Your task to perform on an android device: How do I get to the nearest Best Buy? Image 0: 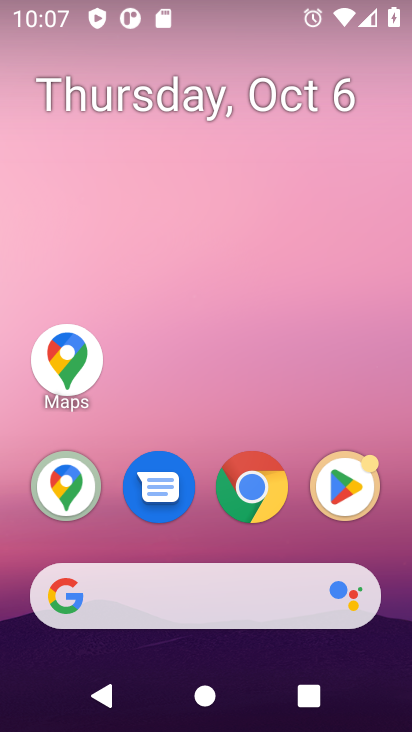
Step 0: click (86, 219)
Your task to perform on an android device: How do I get to the nearest Best Buy? Image 1: 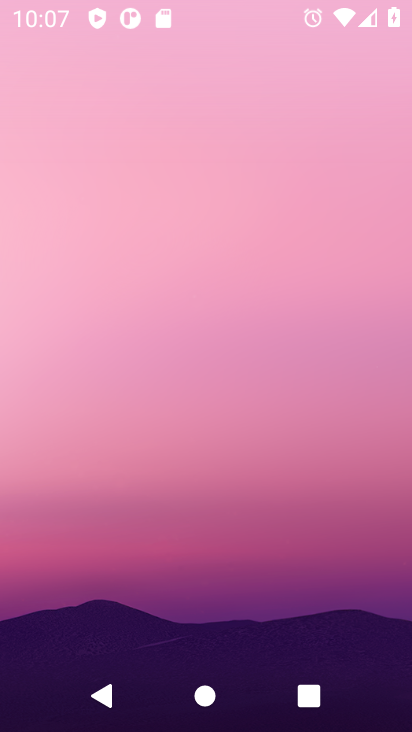
Step 1: drag from (244, 610) to (179, 210)
Your task to perform on an android device: How do I get to the nearest Best Buy? Image 2: 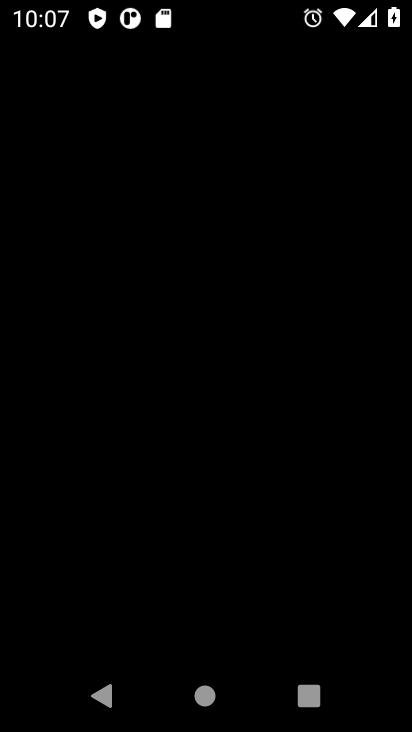
Step 2: press home button
Your task to perform on an android device: How do I get to the nearest Best Buy? Image 3: 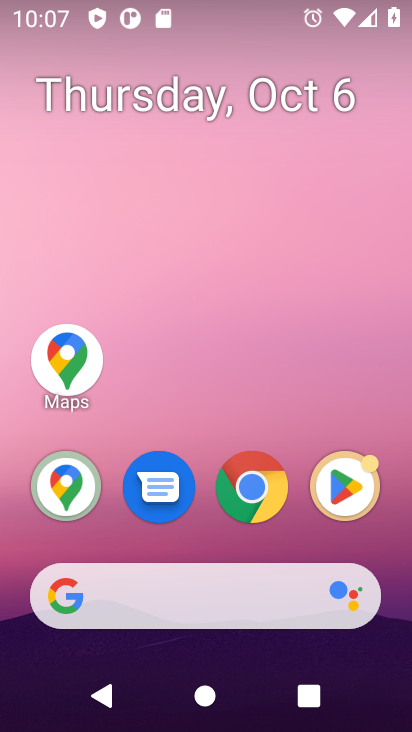
Step 3: drag from (148, 616) to (199, 90)
Your task to perform on an android device: How do I get to the nearest Best Buy? Image 4: 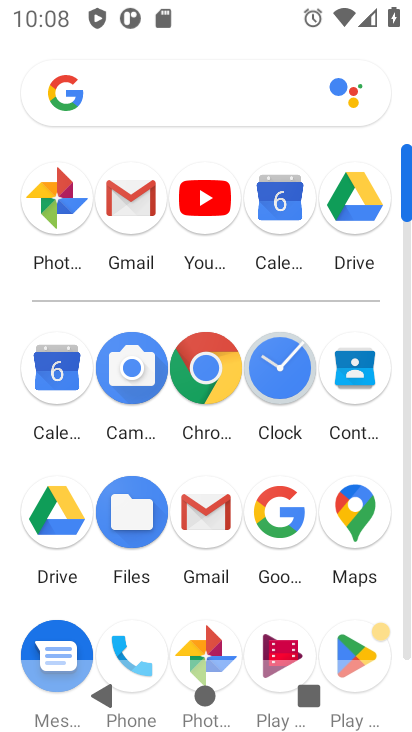
Step 4: click (189, 362)
Your task to perform on an android device: How do I get to the nearest Best Buy? Image 5: 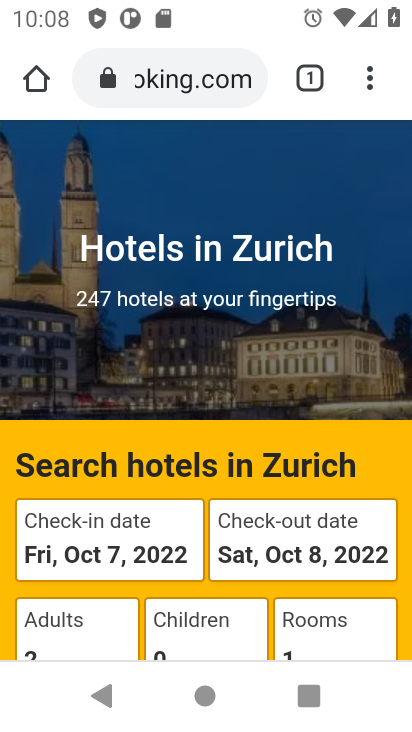
Step 5: click (249, 84)
Your task to perform on an android device: How do I get to the nearest Best Buy? Image 6: 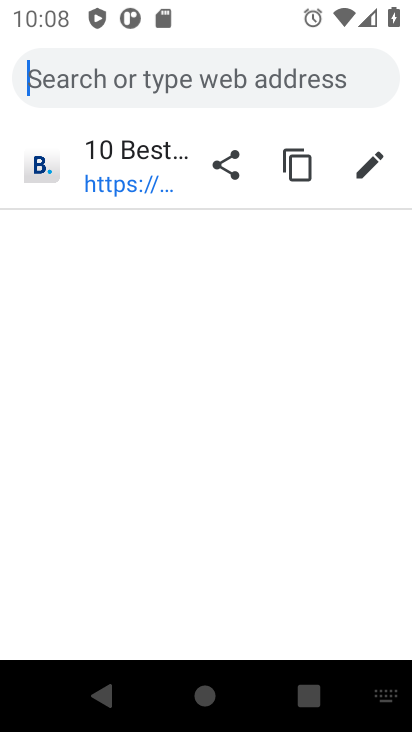
Step 6: type "How do I get to the nearest Best Buy?"
Your task to perform on an android device: How do I get to the nearest Best Buy? Image 7: 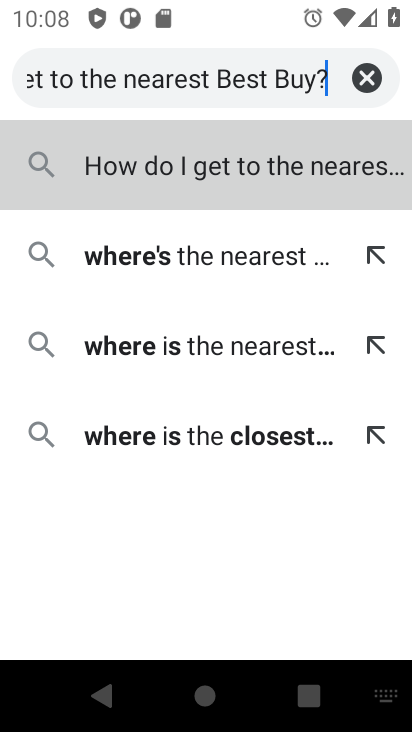
Step 7: press enter
Your task to perform on an android device: How do I get to the nearest Best Buy? Image 8: 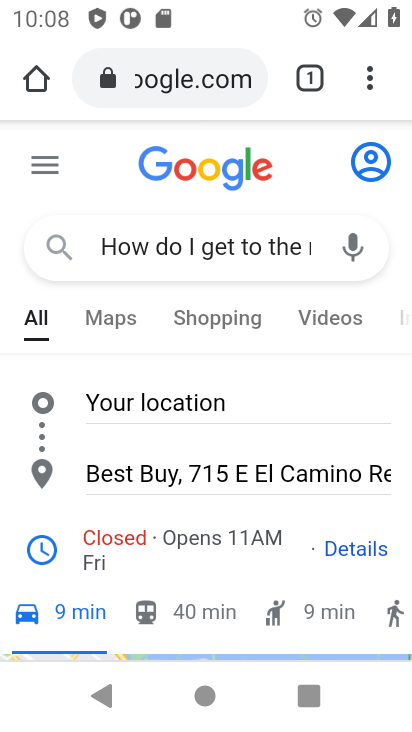
Step 8: task complete